Your task to perform on an android device: open sync settings in chrome Image 0: 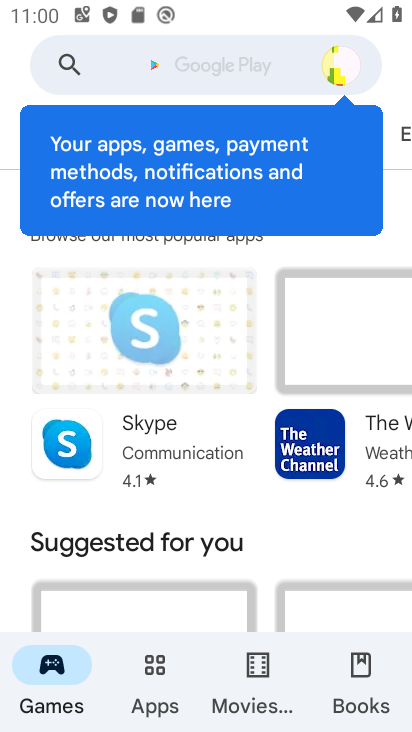
Step 0: press back button
Your task to perform on an android device: open sync settings in chrome Image 1: 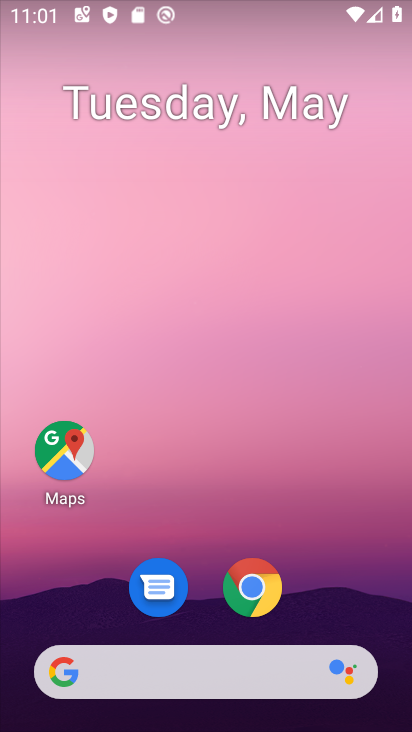
Step 1: click (248, 583)
Your task to perform on an android device: open sync settings in chrome Image 2: 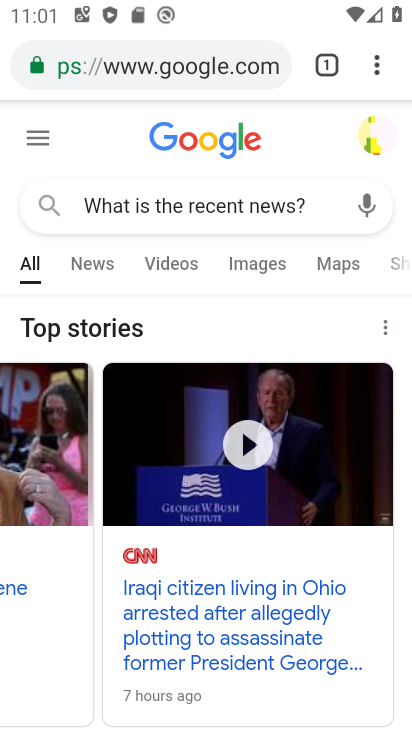
Step 2: drag from (376, 62) to (192, 634)
Your task to perform on an android device: open sync settings in chrome Image 3: 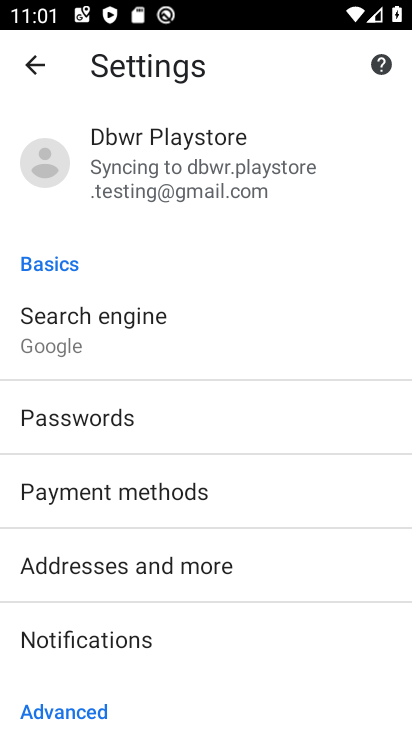
Step 3: drag from (236, 605) to (290, 202)
Your task to perform on an android device: open sync settings in chrome Image 4: 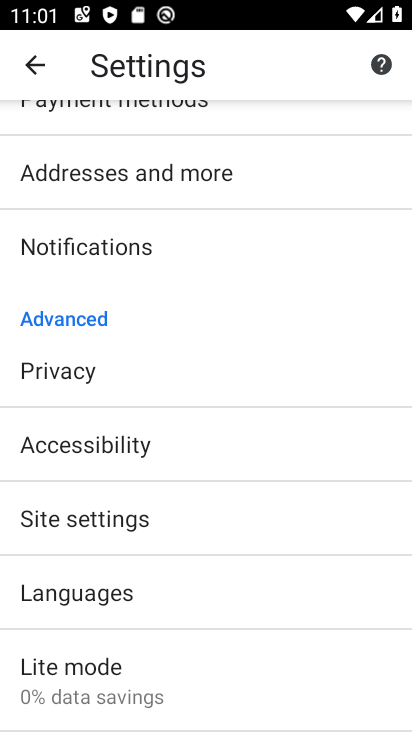
Step 4: drag from (269, 553) to (265, 174)
Your task to perform on an android device: open sync settings in chrome Image 5: 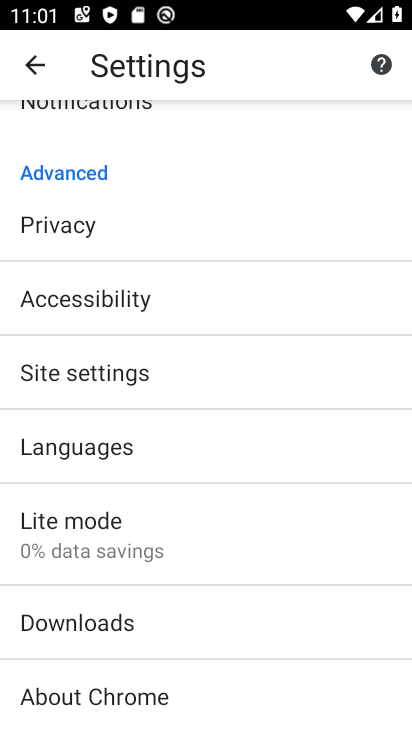
Step 5: drag from (253, 236) to (255, 654)
Your task to perform on an android device: open sync settings in chrome Image 6: 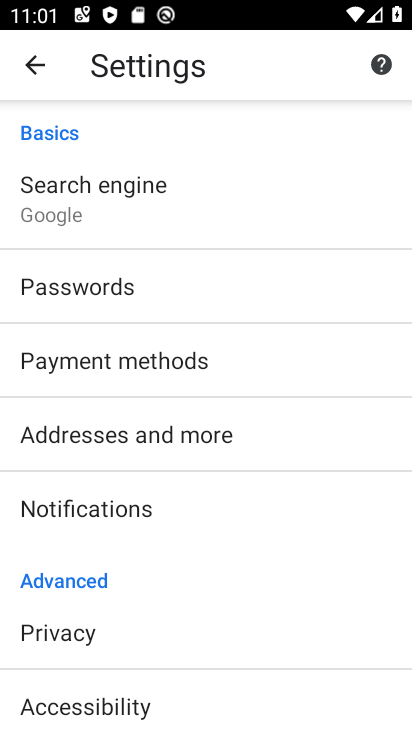
Step 6: drag from (224, 199) to (231, 627)
Your task to perform on an android device: open sync settings in chrome Image 7: 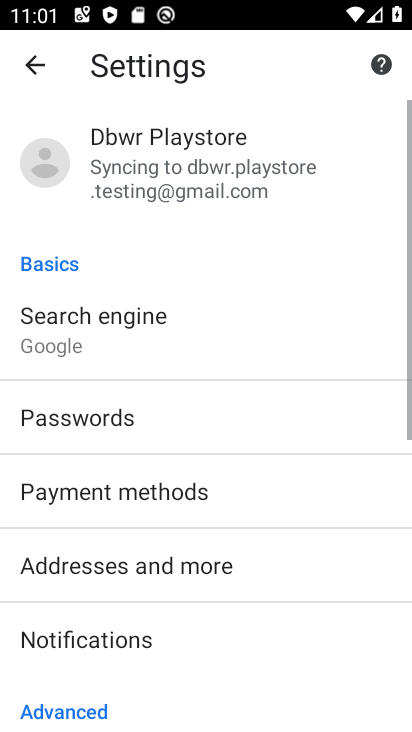
Step 7: click (188, 160)
Your task to perform on an android device: open sync settings in chrome Image 8: 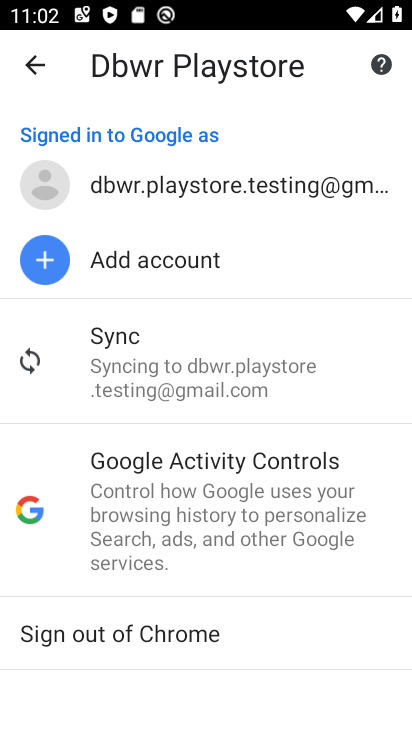
Step 8: click (183, 347)
Your task to perform on an android device: open sync settings in chrome Image 9: 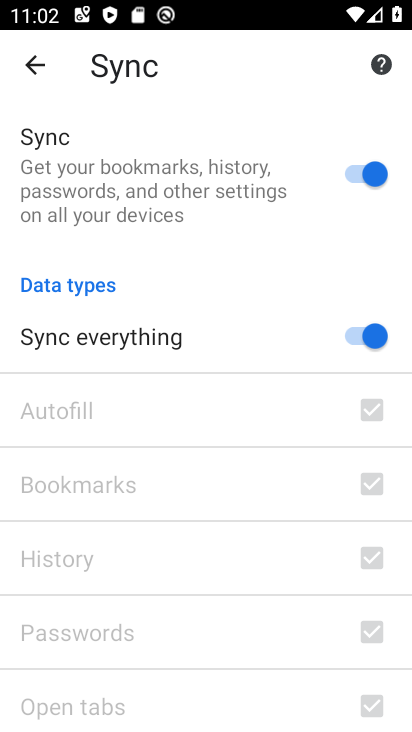
Step 9: task complete